Your task to perform on an android device: read, delete, or share a saved page in the chrome app Image 0: 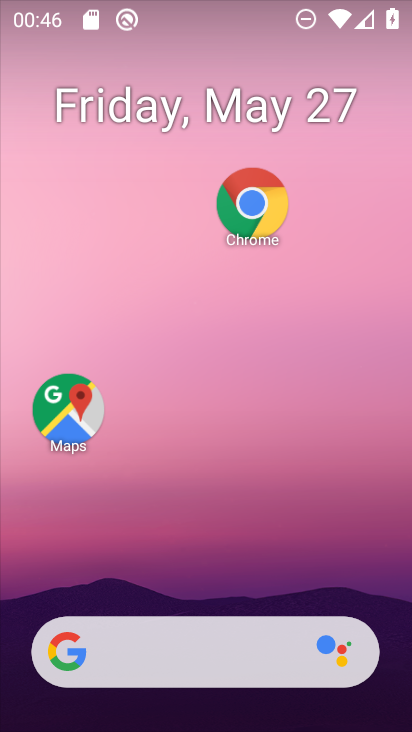
Step 0: drag from (157, 550) to (146, 11)
Your task to perform on an android device: read, delete, or share a saved page in the chrome app Image 1: 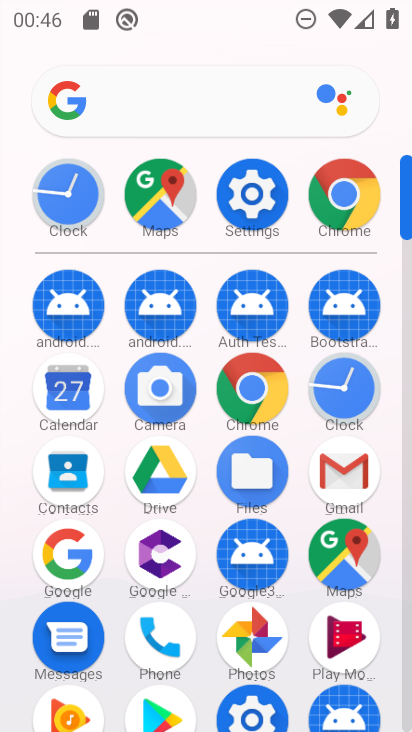
Step 1: click (226, 380)
Your task to perform on an android device: read, delete, or share a saved page in the chrome app Image 2: 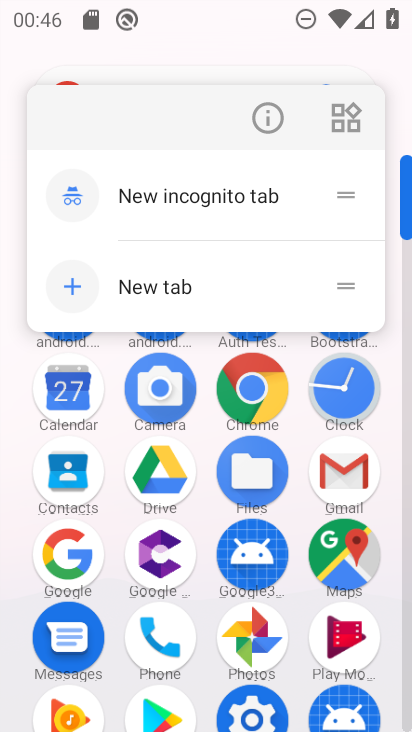
Step 2: click (245, 100)
Your task to perform on an android device: read, delete, or share a saved page in the chrome app Image 3: 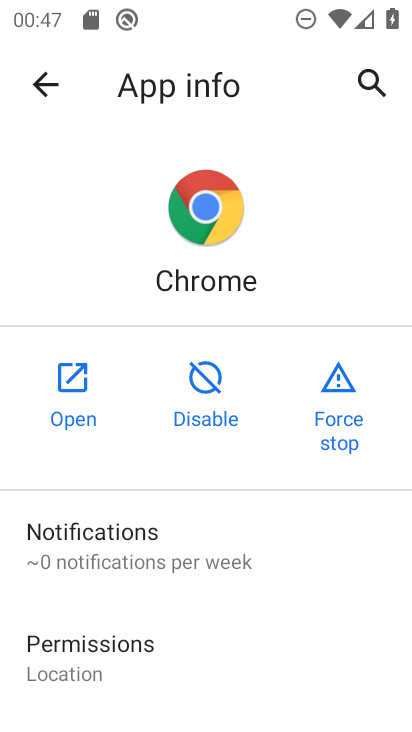
Step 3: click (62, 401)
Your task to perform on an android device: read, delete, or share a saved page in the chrome app Image 4: 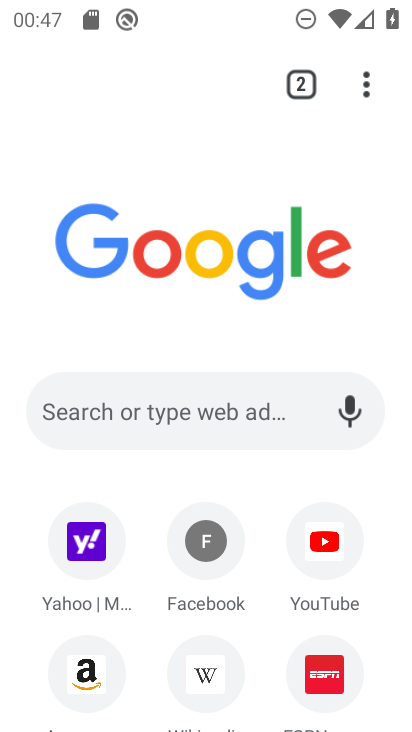
Step 4: click (352, 90)
Your task to perform on an android device: read, delete, or share a saved page in the chrome app Image 5: 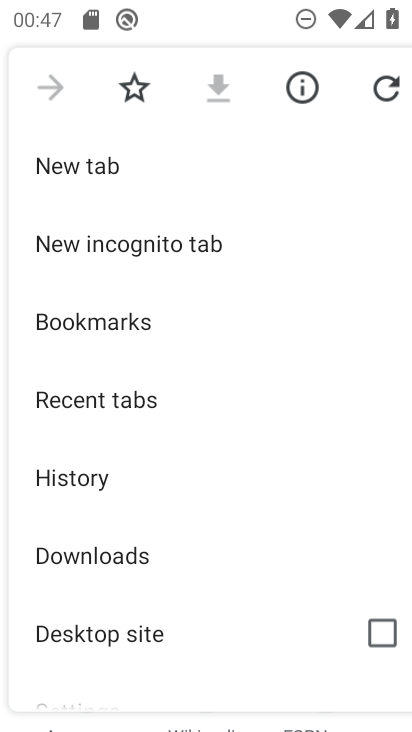
Step 5: click (148, 322)
Your task to perform on an android device: read, delete, or share a saved page in the chrome app Image 6: 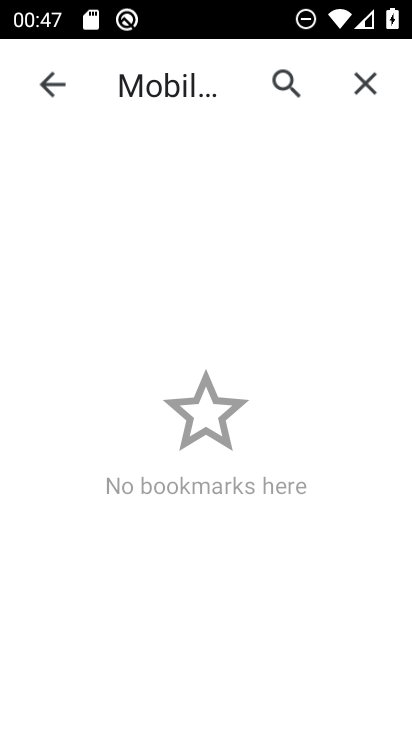
Step 6: task complete